Your task to perform on an android device: turn on sleep mode Image 0: 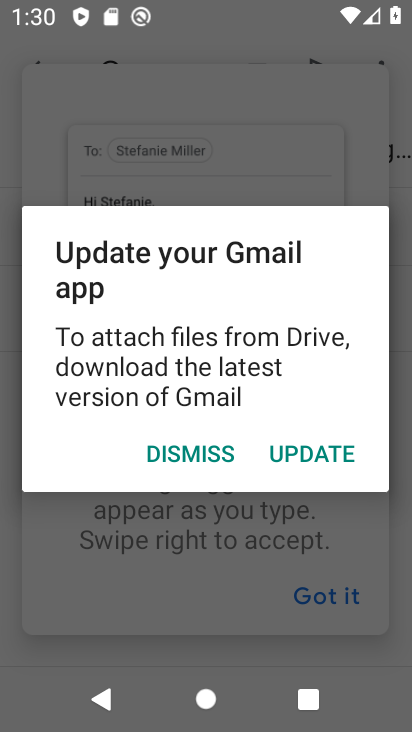
Step 0: press home button
Your task to perform on an android device: turn on sleep mode Image 1: 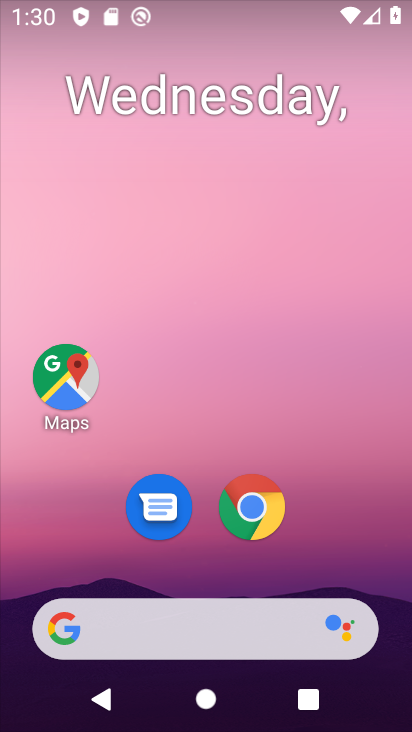
Step 1: click (322, 481)
Your task to perform on an android device: turn on sleep mode Image 2: 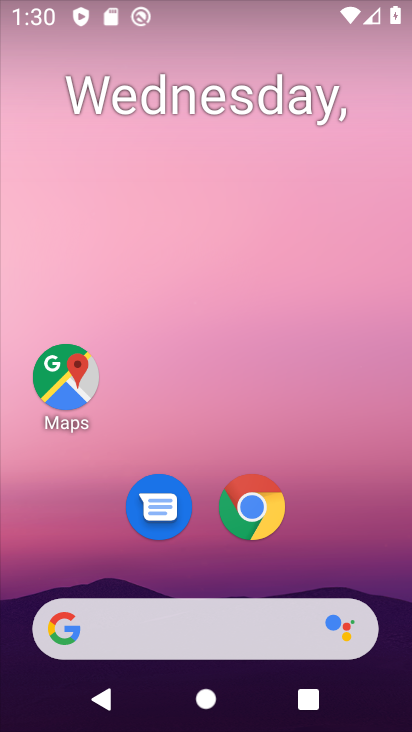
Step 2: drag from (325, 474) to (307, 287)
Your task to perform on an android device: turn on sleep mode Image 3: 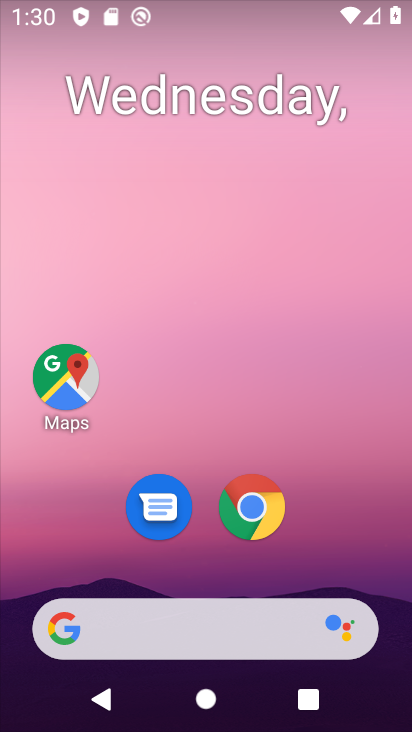
Step 3: drag from (305, 303) to (364, 652)
Your task to perform on an android device: turn on sleep mode Image 4: 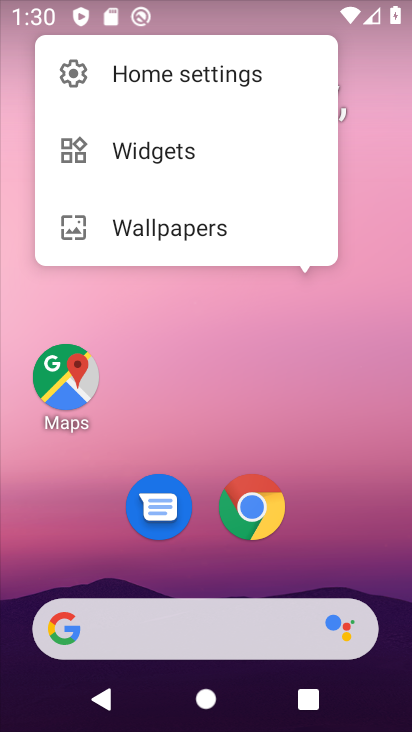
Step 4: drag from (368, 672) to (398, 648)
Your task to perform on an android device: turn on sleep mode Image 5: 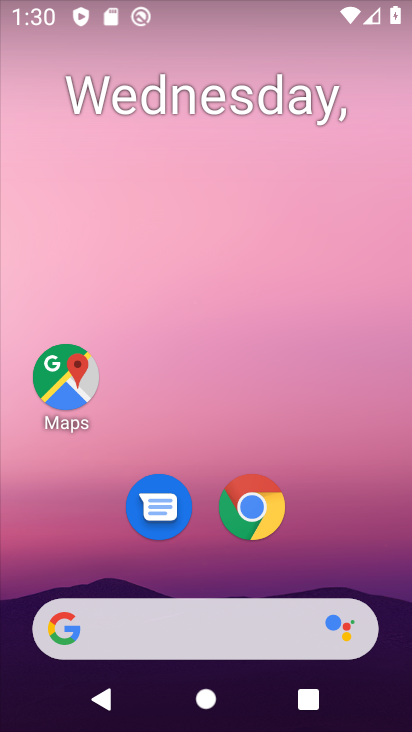
Step 5: drag from (403, 648) to (250, 728)
Your task to perform on an android device: turn on sleep mode Image 6: 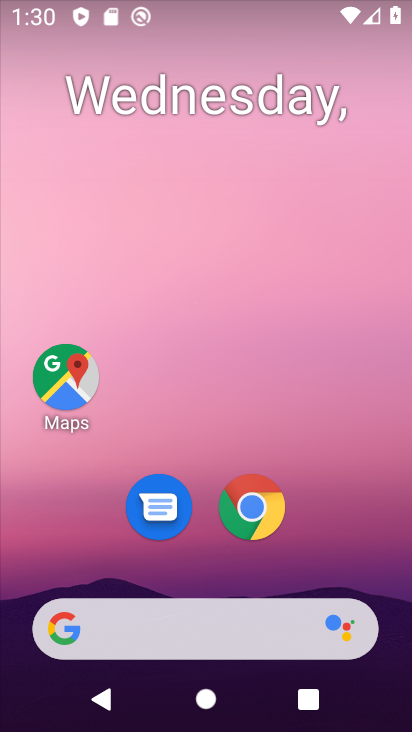
Step 6: drag from (257, 699) to (249, 309)
Your task to perform on an android device: turn on sleep mode Image 7: 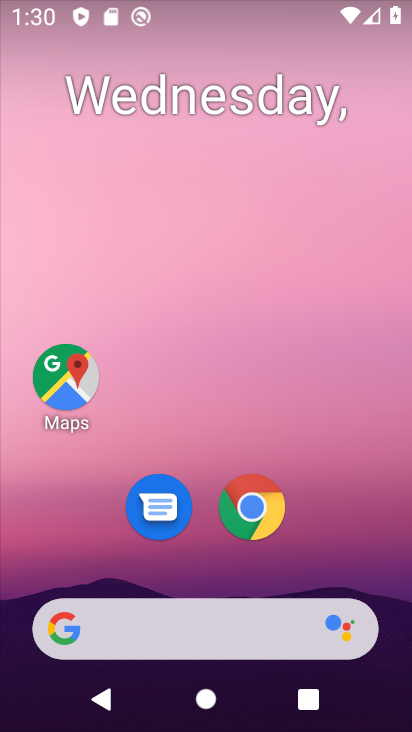
Step 7: drag from (288, 690) to (272, 333)
Your task to perform on an android device: turn on sleep mode Image 8: 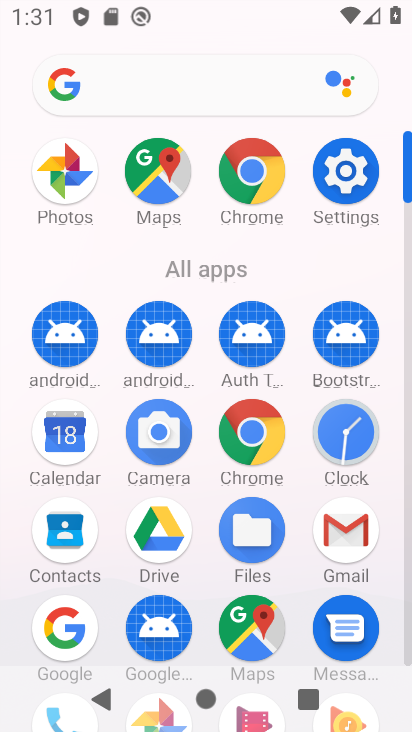
Step 8: click (337, 180)
Your task to perform on an android device: turn on sleep mode Image 9: 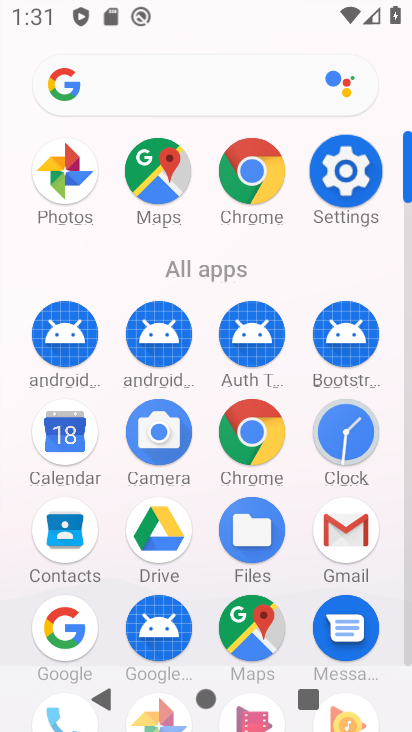
Step 9: click (337, 181)
Your task to perform on an android device: turn on sleep mode Image 10: 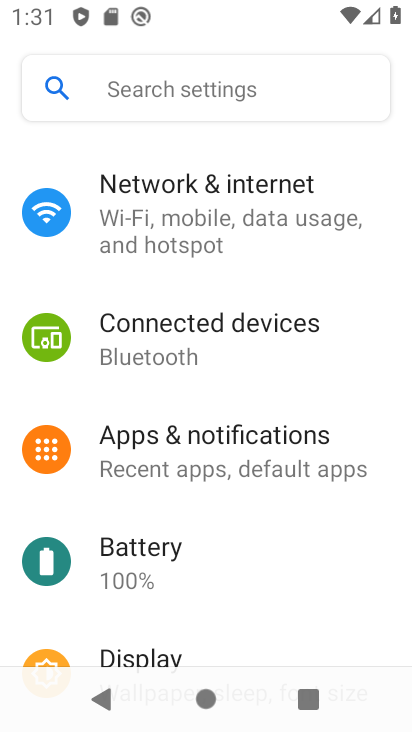
Step 10: click (337, 181)
Your task to perform on an android device: turn on sleep mode Image 11: 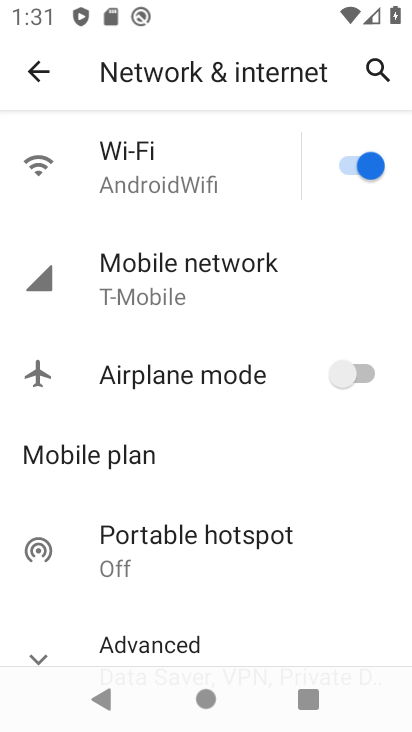
Step 11: click (39, 69)
Your task to perform on an android device: turn on sleep mode Image 12: 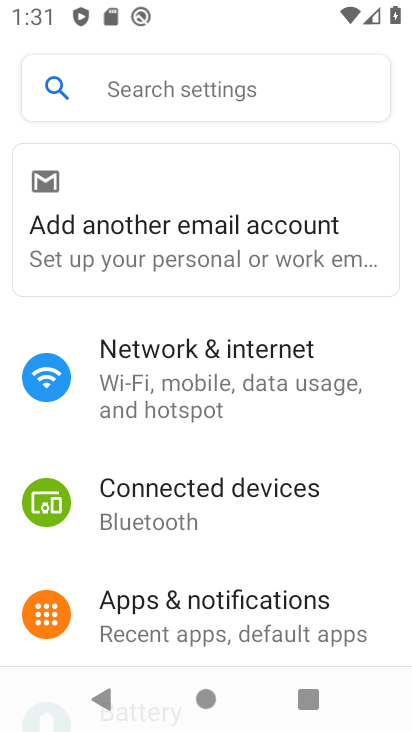
Step 12: click (357, 481)
Your task to perform on an android device: turn on sleep mode Image 13: 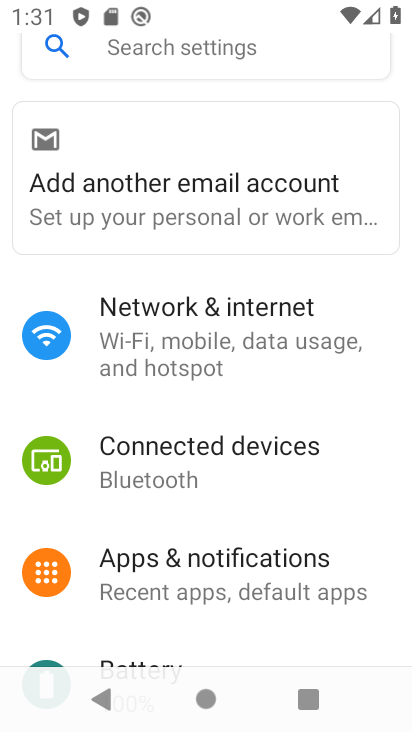
Step 13: drag from (350, 466) to (336, 30)
Your task to perform on an android device: turn on sleep mode Image 14: 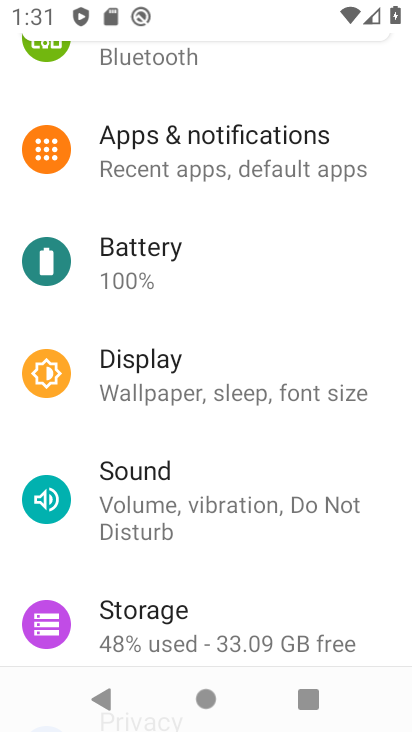
Step 14: click (148, 357)
Your task to perform on an android device: turn on sleep mode Image 15: 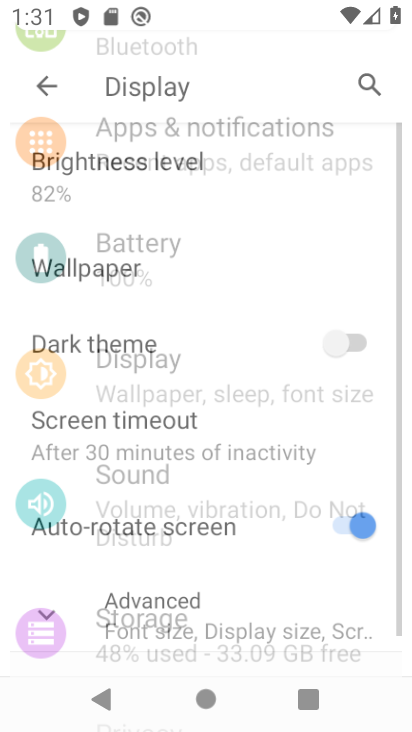
Step 15: click (147, 363)
Your task to perform on an android device: turn on sleep mode Image 16: 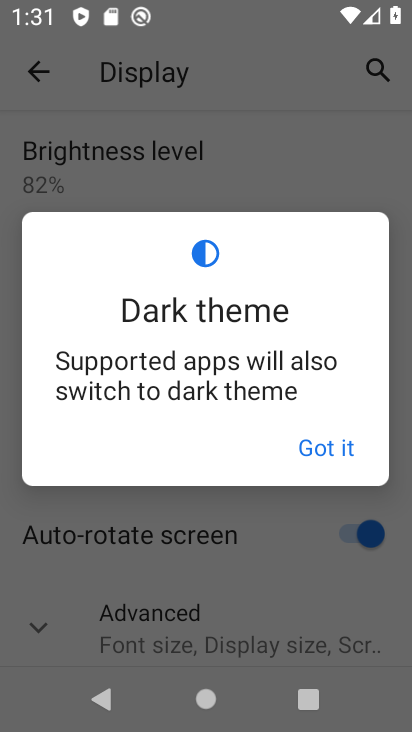
Step 16: press back button
Your task to perform on an android device: turn on sleep mode Image 17: 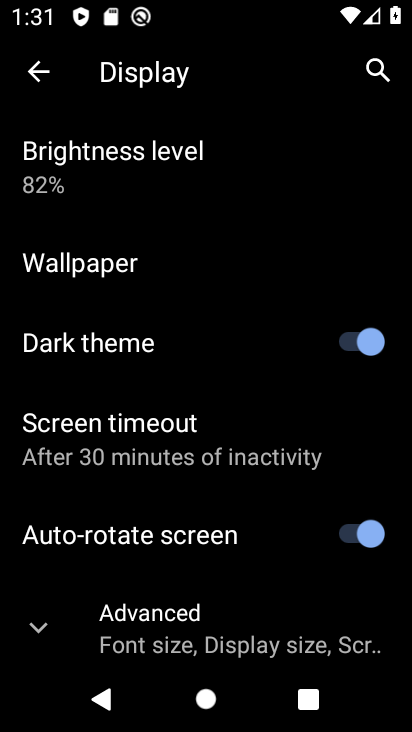
Step 17: click (135, 462)
Your task to perform on an android device: turn on sleep mode Image 18: 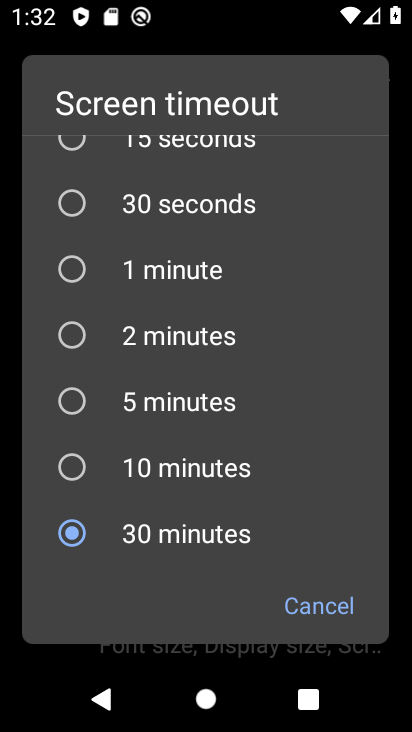
Step 18: task complete